Your task to perform on an android device: Do I have any events tomorrow? Image 0: 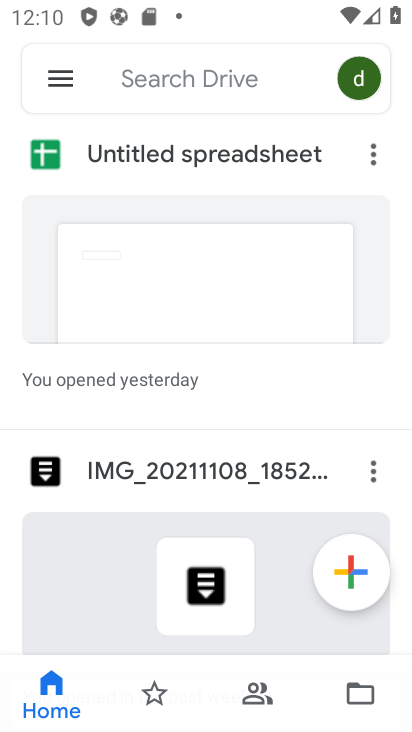
Step 0: press home button
Your task to perform on an android device: Do I have any events tomorrow? Image 1: 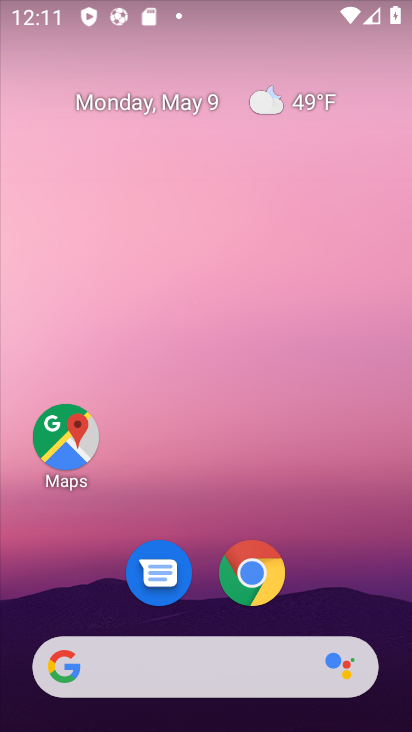
Step 1: drag from (241, 685) to (208, 58)
Your task to perform on an android device: Do I have any events tomorrow? Image 2: 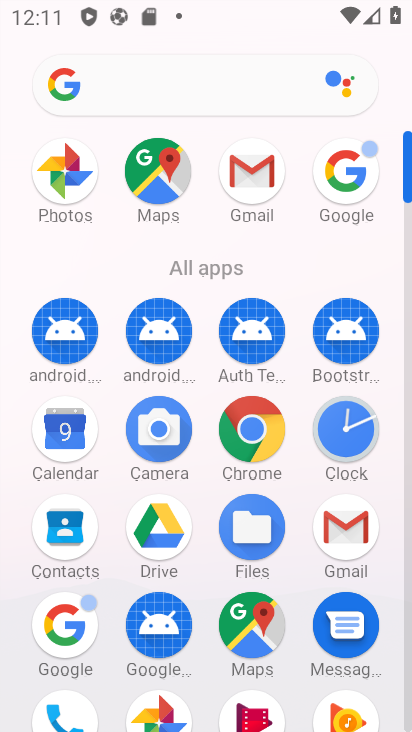
Step 2: click (64, 430)
Your task to perform on an android device: Do I have any events tomorrow? Image 3: 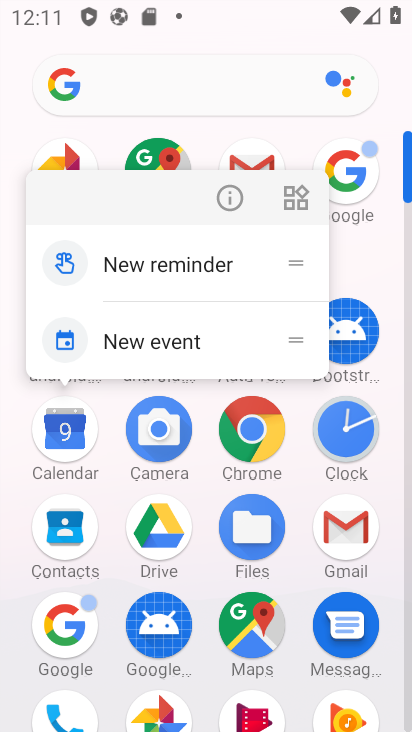
Step 3: click (63, 430)
Your task to perform on an android device: Do I have any events tomorrow? Image 4: 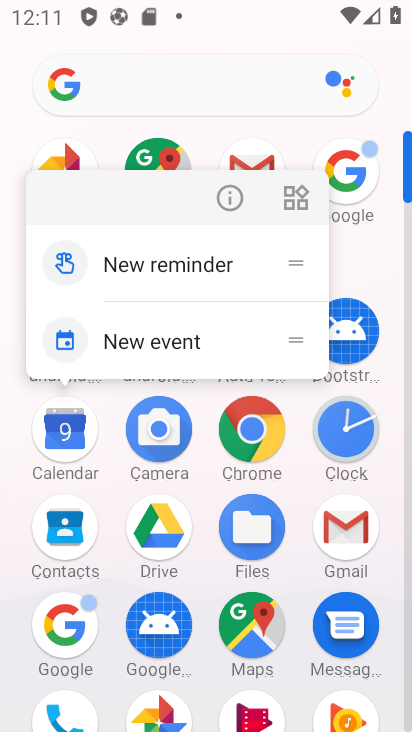
Step 4: click (63, 430)
Your task to perform on an android device: Do I have any events tomorrow? Image 5: 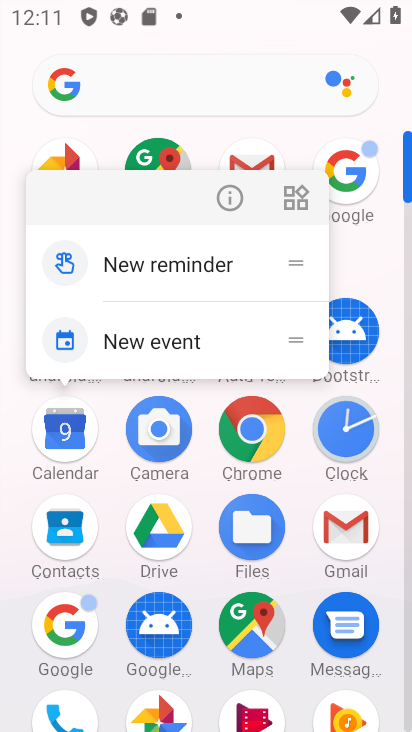
Step 5: click (63, 430)
Your task to perform on an android device: Do I have any events tomorrow? Image 6: 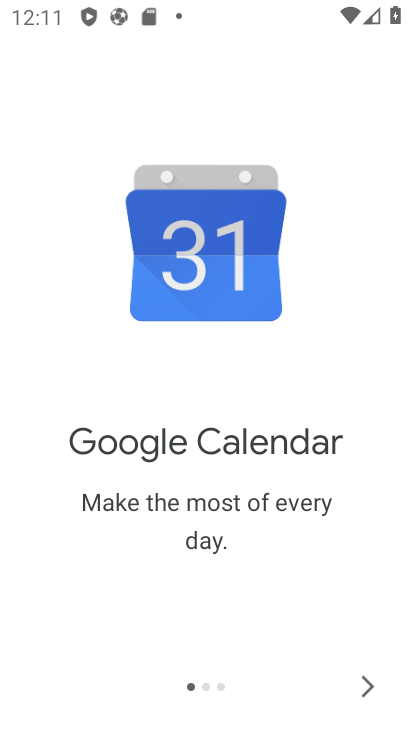
Step 6: click (361, 686)
Your task to perform on an android device: Do I have any events tomorrow? Image 7: 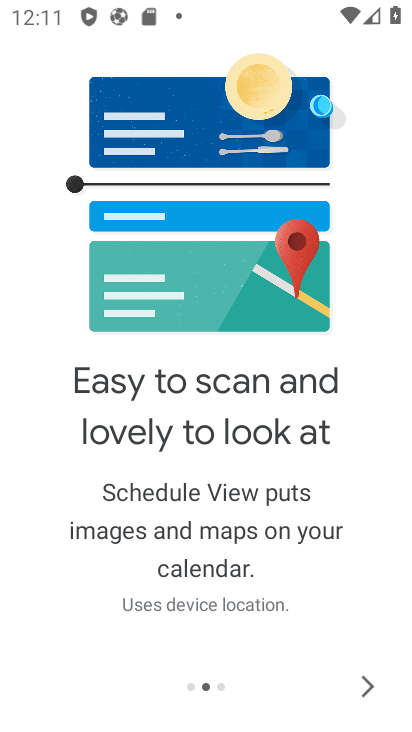
Step 7: click (361, 686)
Your task to perform on an android device: Do I have any events tomorrow? Image 8: 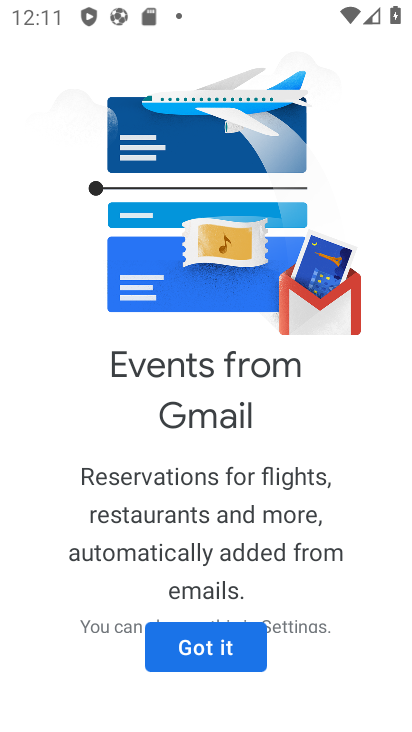
Step 8: click (160, 649)
Your task to perform on an android device: Do I have any events tomorrow? Image 9: 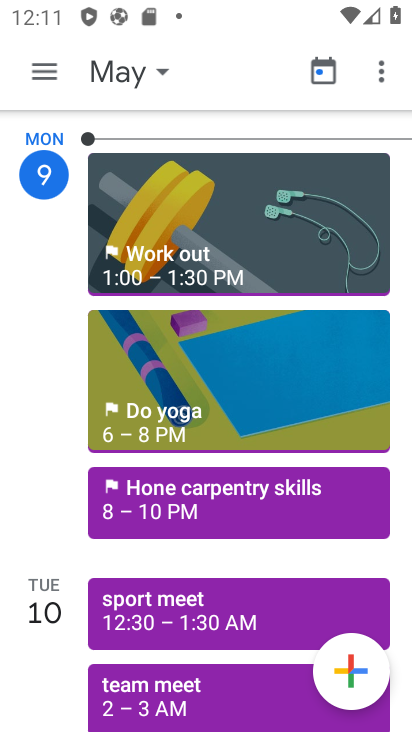
Step 9: task complete